Your task to perform on an android device: Open Google Chrome Image 0: 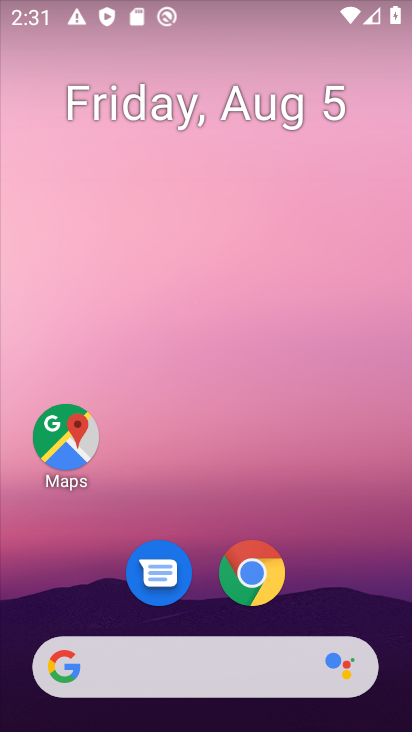
Step 0: click (262, 581)
Your task to perform on an android device: Open Google Chrome Image 1: 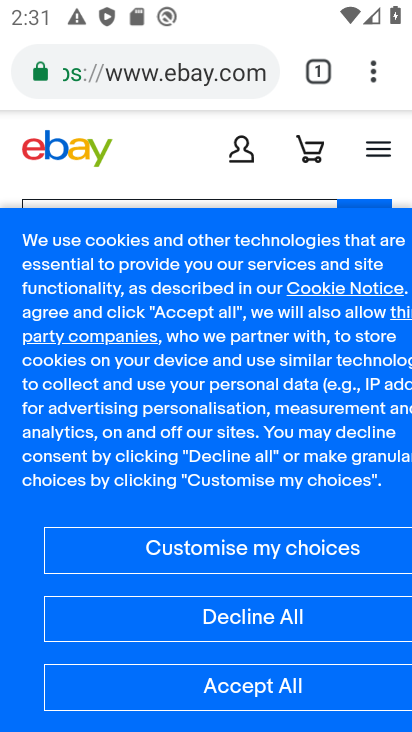
Step 1: task complete